Your task to perform on an android device: Go to CNN.com Image 0: 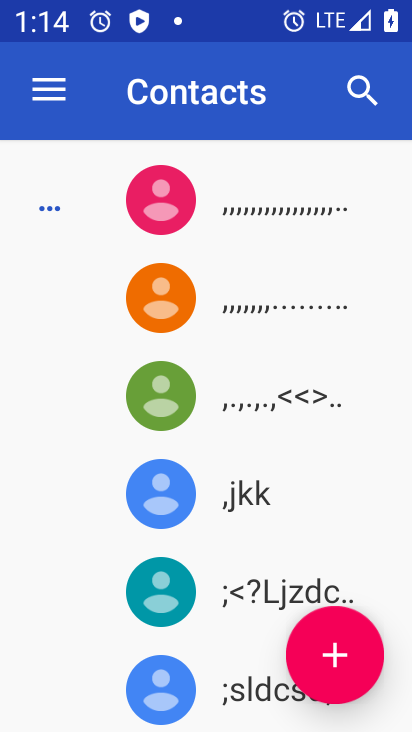
Step 0: press home button
Your task to perform on an android device: Go to CNN.com Image 1: 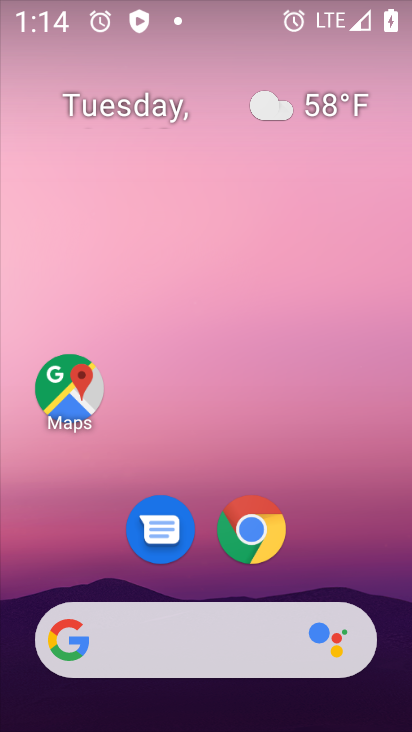
Step 1: click (294, 182)
Your task to perform on an android device: Go to CNN.com Image 2: 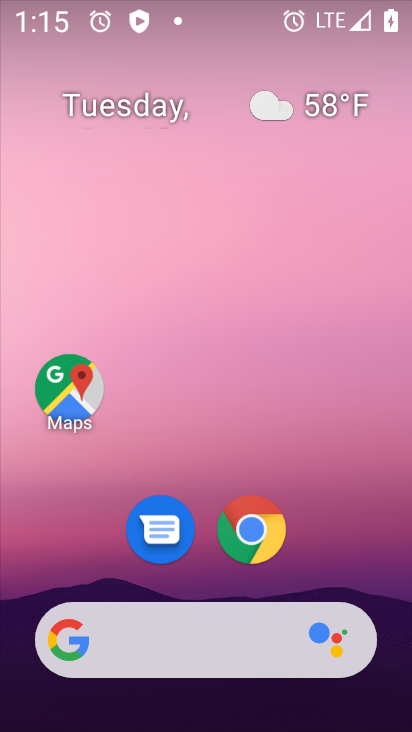
Step 2: click (259, 547)
Your task to perform on an android device: Go to CNN.com Image 3: 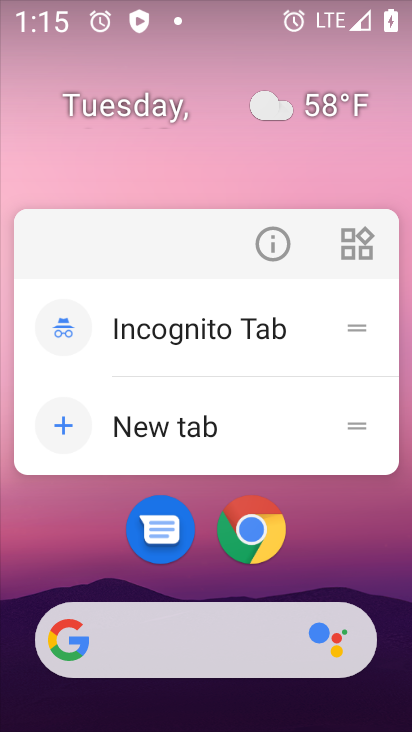
Step 3: click (251, 563)
Your task to perform on an android device: Go to CNN.com Image 4: 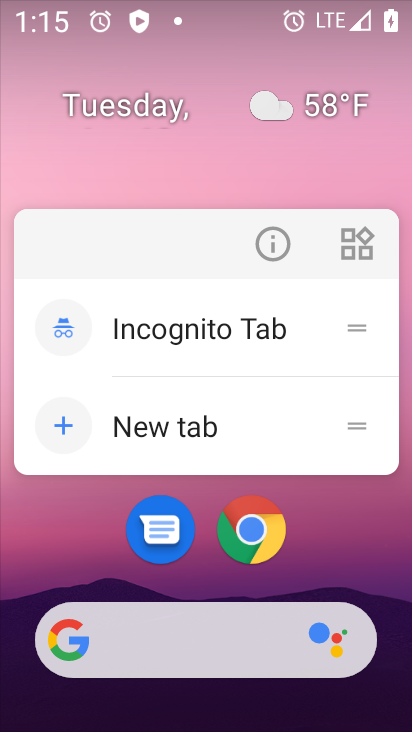
Step 4: click (257, 539)
Your task to perform on an android device: Go to CNN.com Image 5: 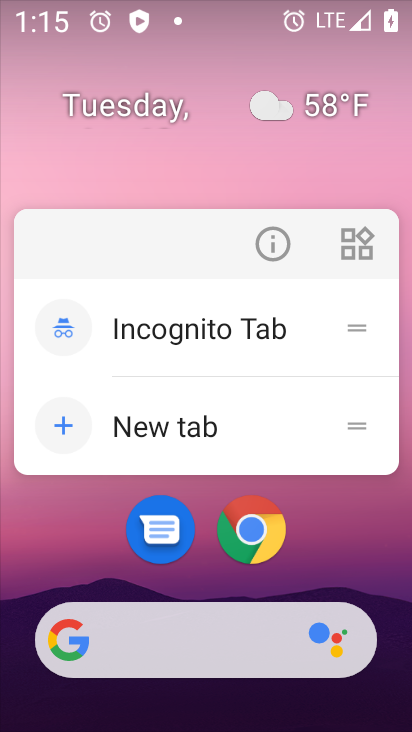
Step 5: click (258, 538)
Your task to perform on an android device: Go to CNN.com Image 6: 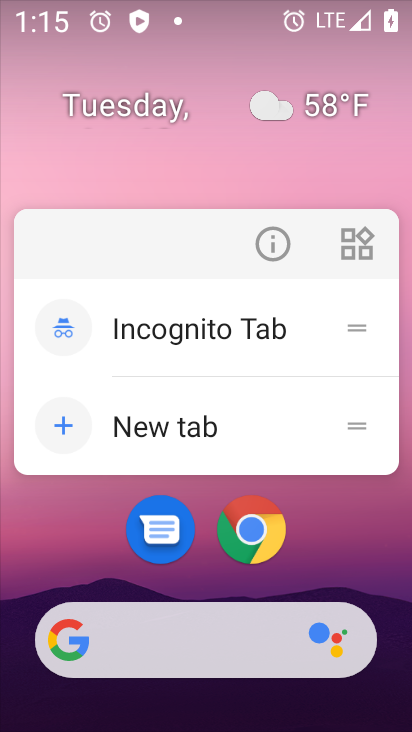
Step 6: click (254, 538)
Your task to perform on an android device: Go to CNN.com Image 7: 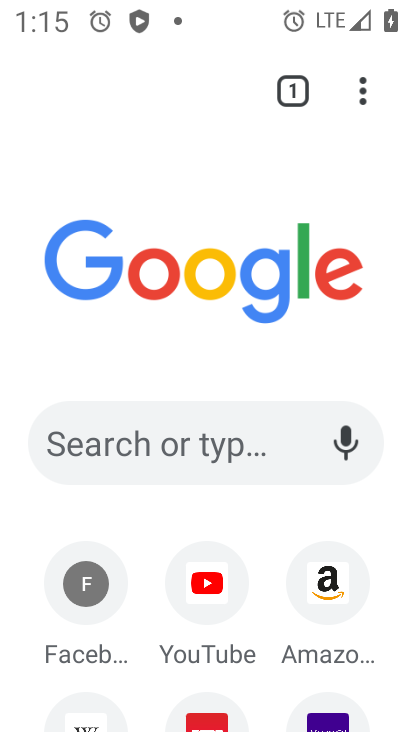
Step 7: drag from (241, 561) to (254, 388)
Your task to perform on an android device: Go to CNN.com Image 8: 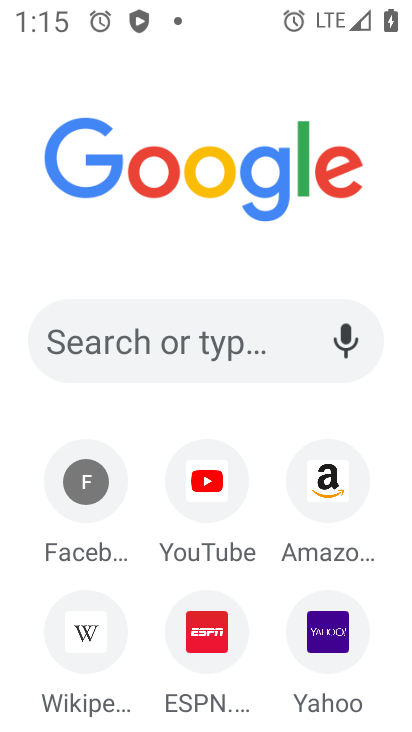
Step 8: click (205, 344)
Your task to perform on an android device: Go to CNN.com Image 9: 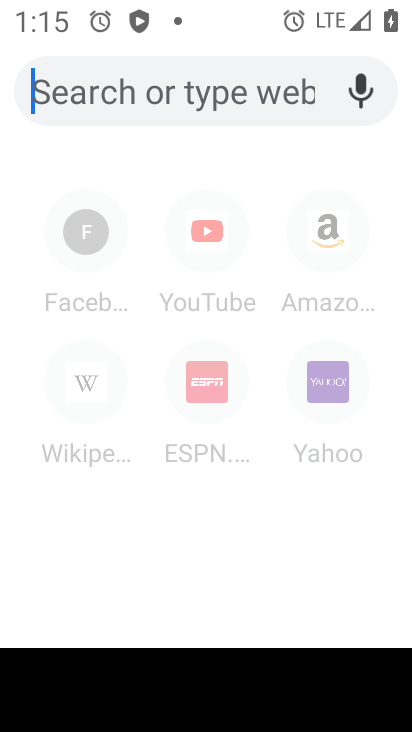
Step 9: type "cnn.com"
Your task to perform on an android device: Go to CNN.com Image 10: 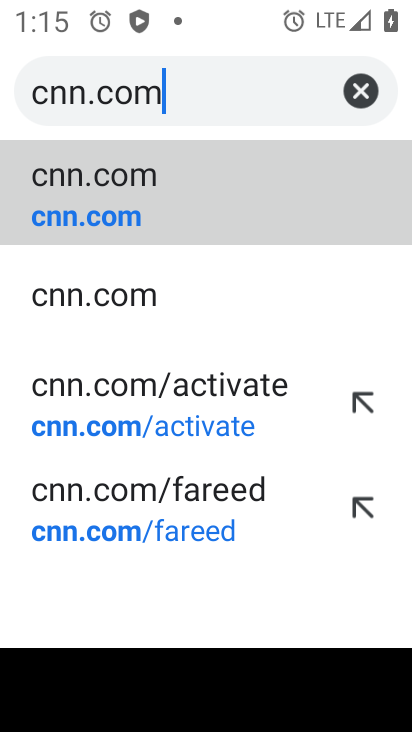
Step 10: click (257, 209)
Your task to perform on an android device: Go to CNN.com Image 11: 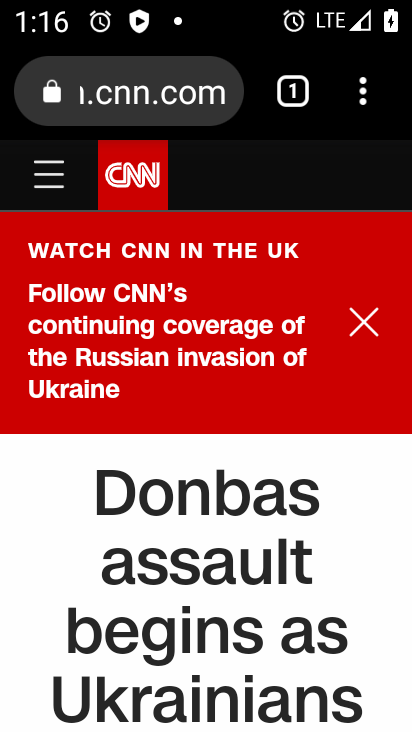
Step 11: task complete